Your task to perform on an android device: Open the calendar and show me this week's events? Image 0: 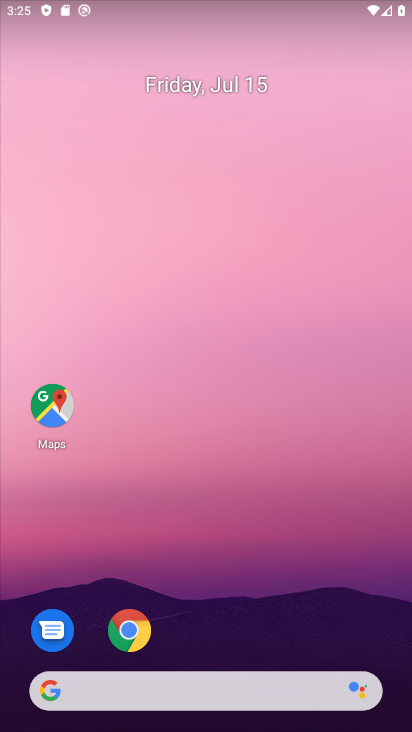
Step 0: drag from (221, 657) to (194, 117)
Your task to perform on an android device: Open the calendar and show me this week's events? Image 1: 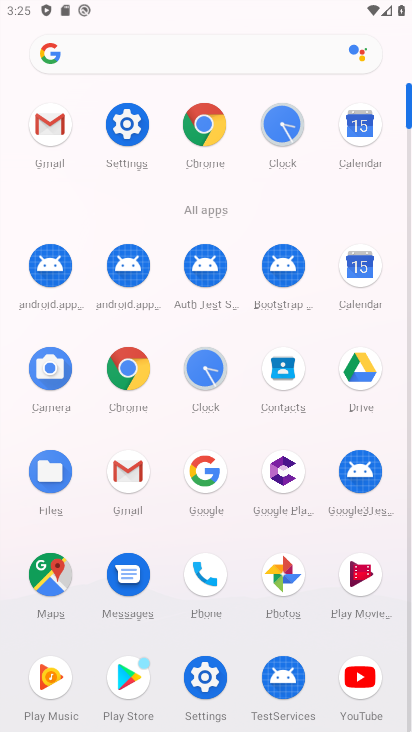
Step 1: click (354, 277)
Your task to perform on an android device: Open the calendar and show me this week's events? Image 2: 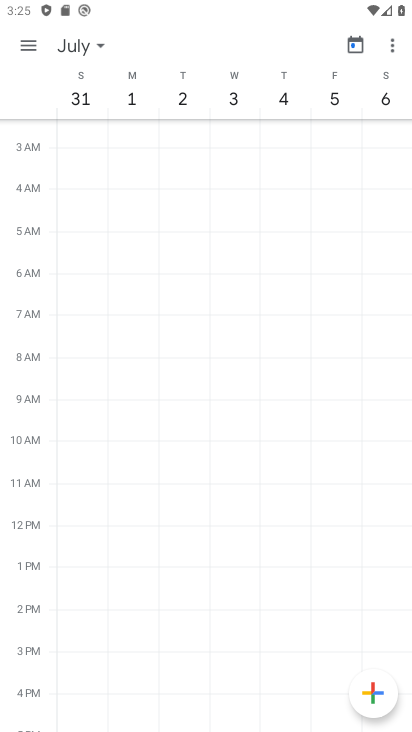
Step 2: drag from (110, 93) to (344, 102)
Your task to perform on an android device: Open the calendar and show me this week's events? Image 3: 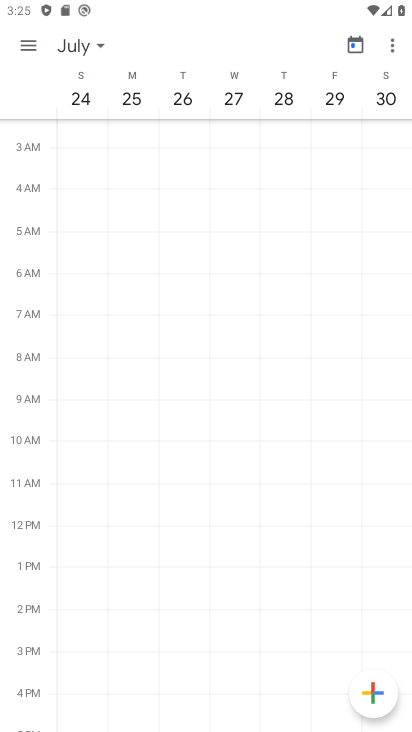
Step 3: drag from (100, 92) to (294, 94)
Your task to perform on an android device: Open the calendar and show me this week's events? Image 4: 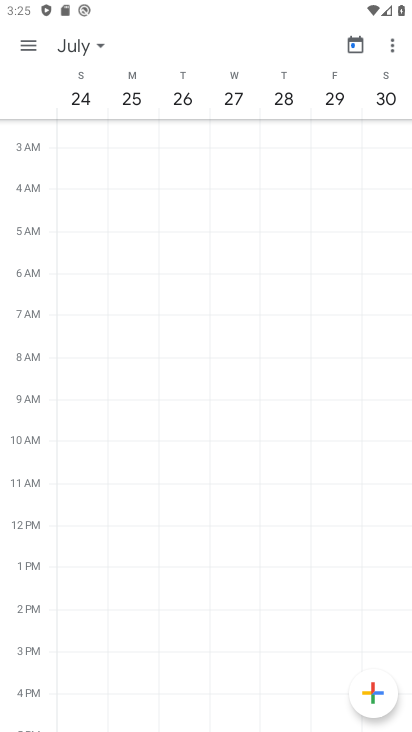
Step 4: click (361, 33)
Your task to perform on an android device: Open the calendar and show me this week's events? Image 5: 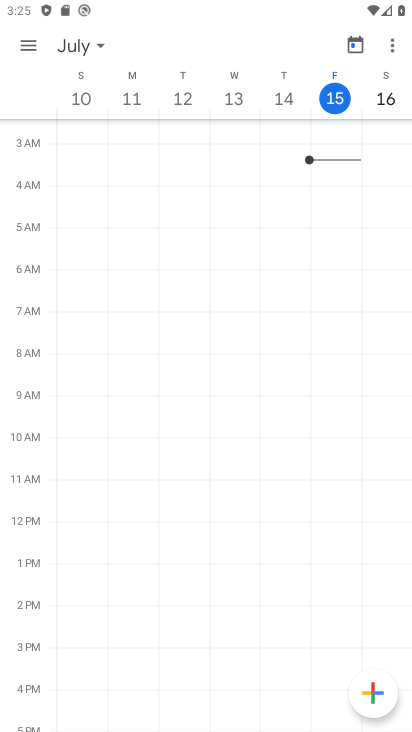
Step 5: click (381, 94)
Your task to perform on an android device: Open the calendar and show me this week's events? Image 6: 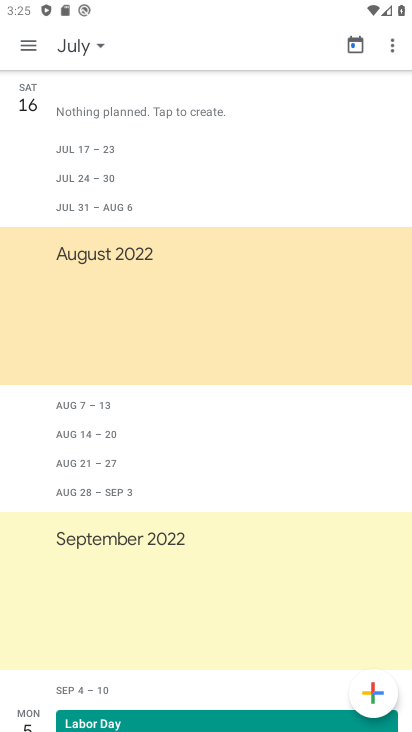
Step 6: task complete